Your task to perform on an android device: open chrome privacy settings Image 0: 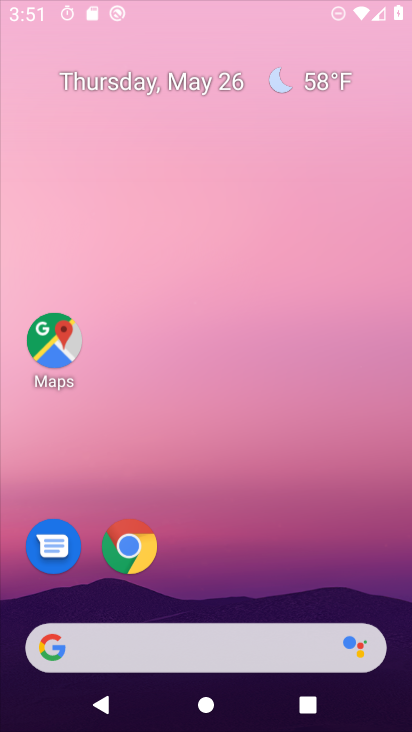
Step 0: press home button
Your task to perform on an android device: open chrome privacy settings Image 1: 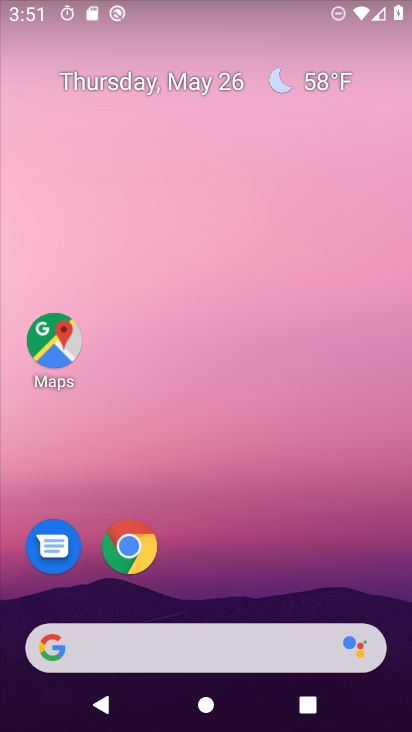
Step 1: press home button
Your task to perform on an android device: open chrome privacy settings Image 2: 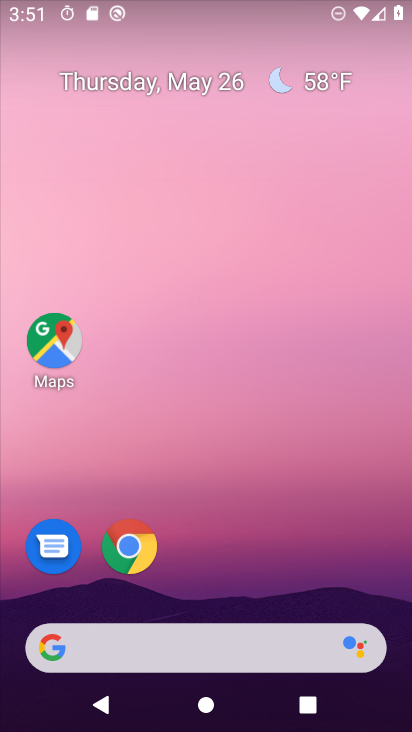
Step 2: drag from (206, 595) to (207, 43)
Your task to perform on an android device: open chrome privacy settings Image 3: 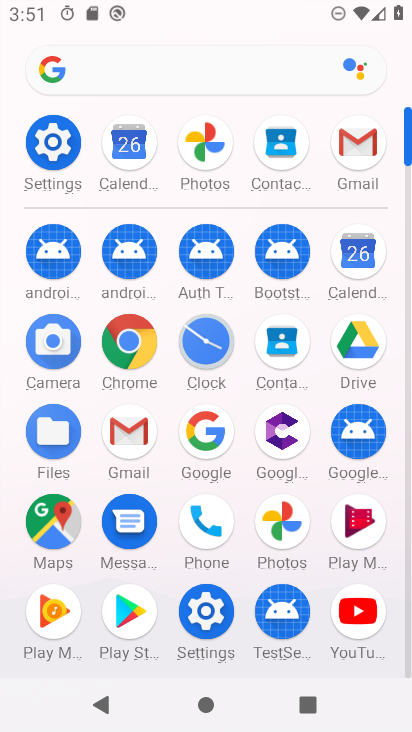
Step 3: click (202, 606)
Your task to perform on an android device: open chrome privacy settings Image 4: 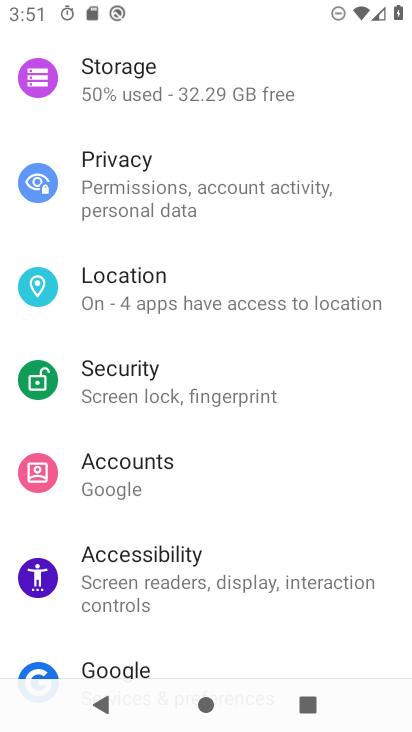
Step 4: click (158, 187)
Your task to perform on an android device: open chrome privacy settings Image 5: 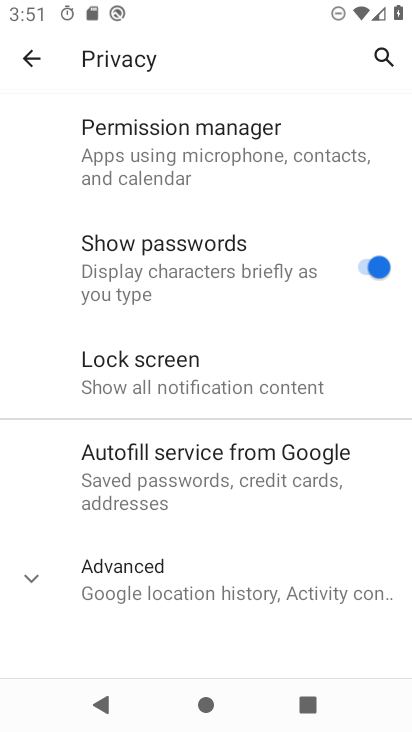
Step 5: click (31, 579)
Your task to perform on an android device: open chrome privacy settings Image 6: 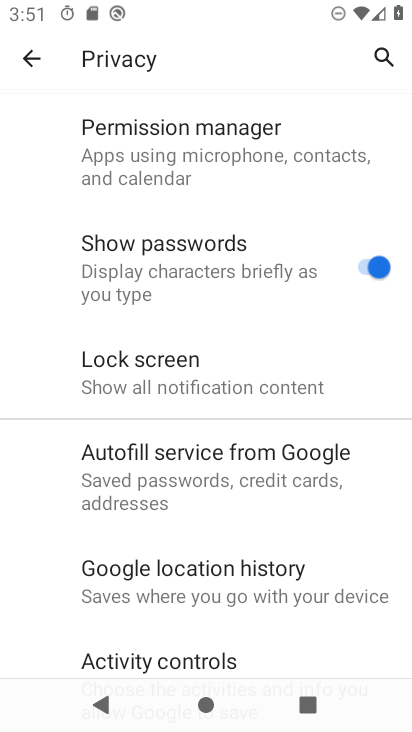
Step 6: task complete